Your task to perform on an android device: Show me some nice wallpapers for my desktop Image 0: 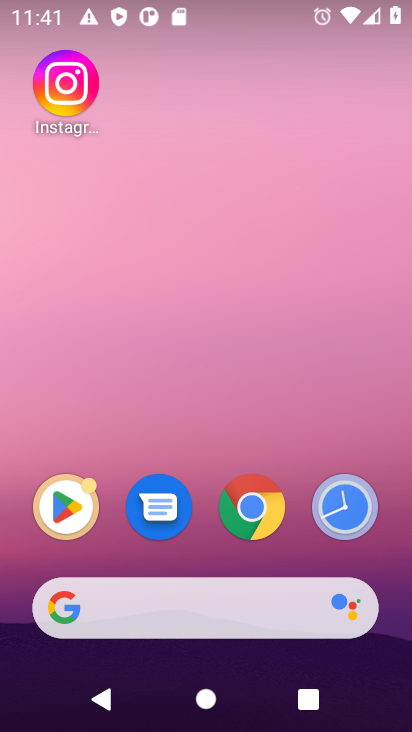
Step 0: press home button
Your task to perform on an android device: Show me some nice wallpapers for my desktop Image 1: 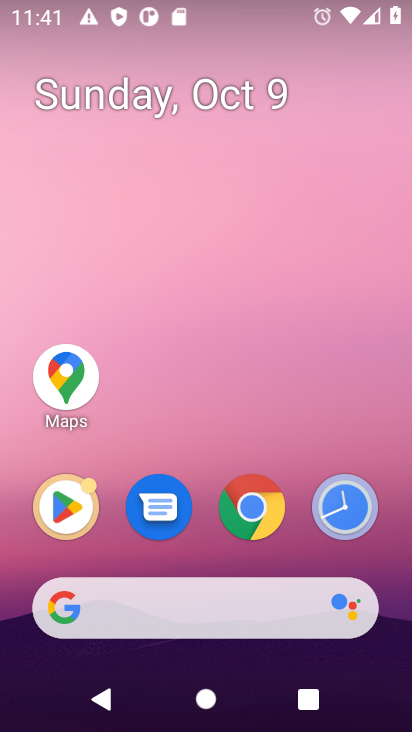
Step 1: click (237, 607)
Your task to perform on an android device: Show me some nice wallpapers for my desktop Image 2: 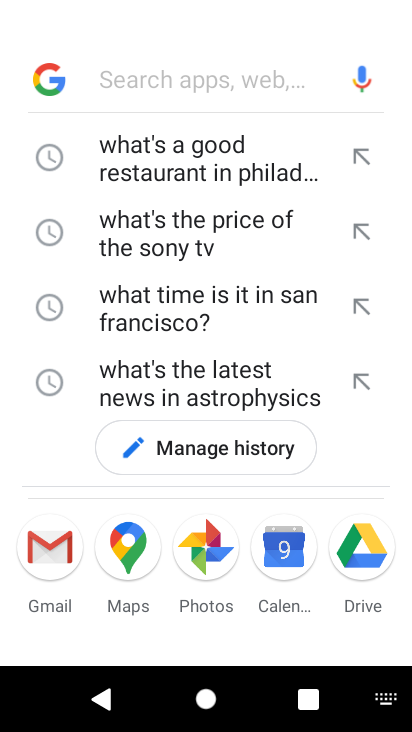
Step 2: type "Show me some nice wallpapers for my desktop"
Your task to perform on an android device: Show me some nice wallpapers for my desktop Image 3: 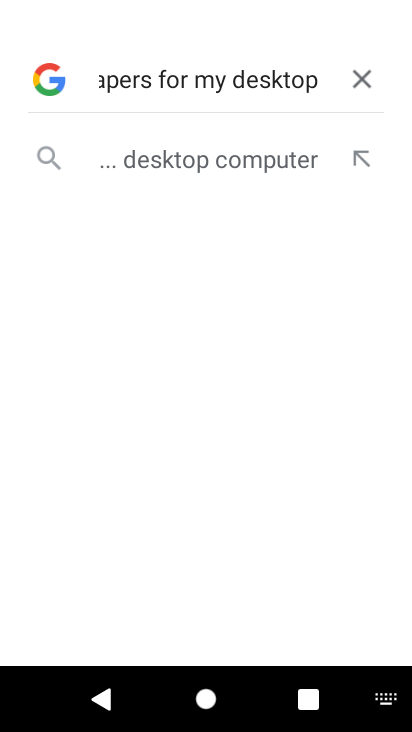
Step 3: press enter
Your task to perform on an android device: Show me some nice wallpapers for my desktop Image 4: 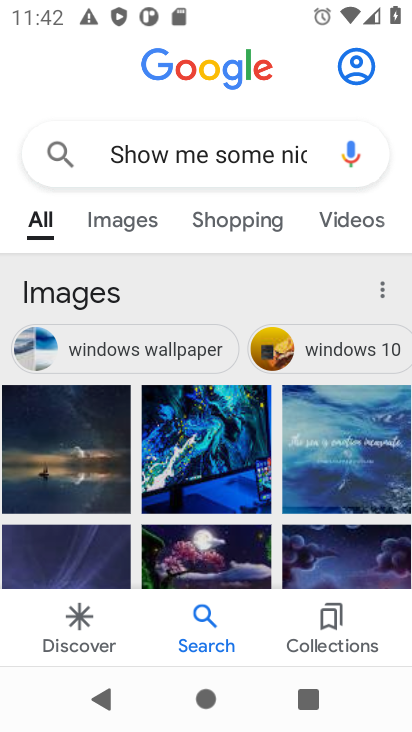
Step 4: drag from (244, 535) to (258, 257)
Your task to perform on an android device: Show me some nice wallpapers for my desktop Image 5: 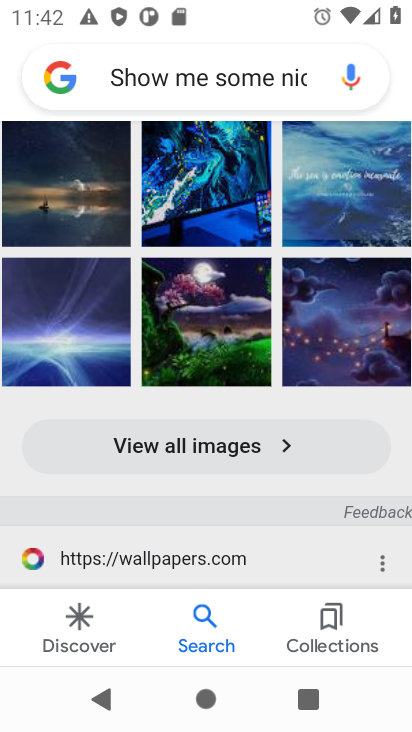
Step 5: click (225, 451)
Your task to perform on an android device: Show me some nice wallpapers for my desktop Image 6: 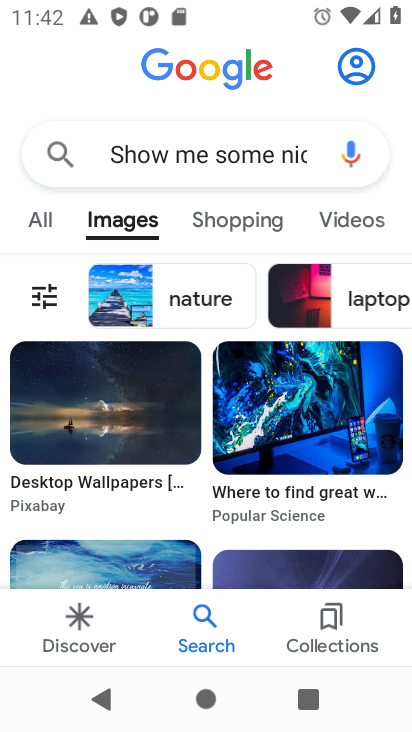
Step 6: task complete